Your task to perform on an android device: turn off location Image 0: 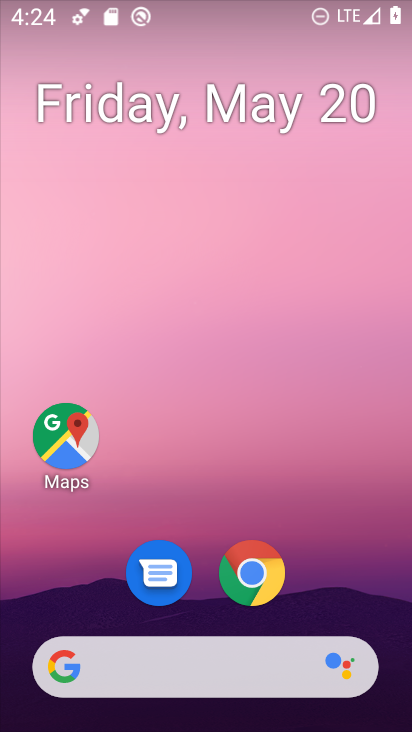
Step 0: drag from (374, 585) to (328, 144)
Your task to perform on an android device: turn off location Image 1: 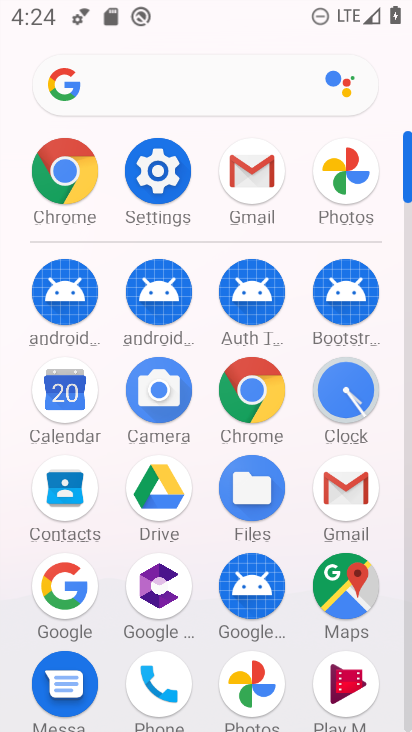
Step 1: click (160, 159)
Your task to perform on an android device: turn off location Image 2: 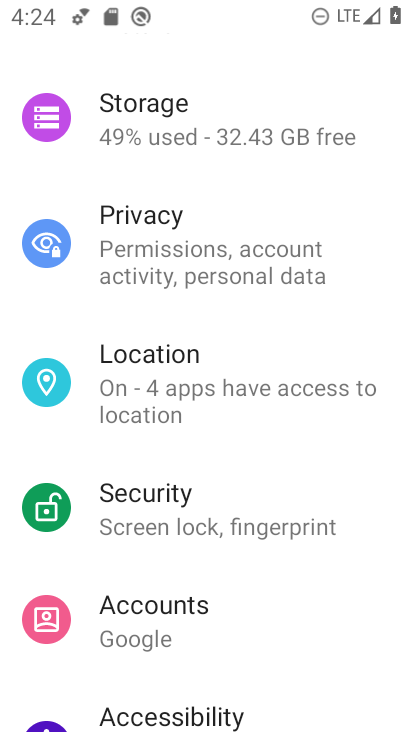
Step 2: click (174, 360)
Your task to perform on an android device: turn off location Image 3: 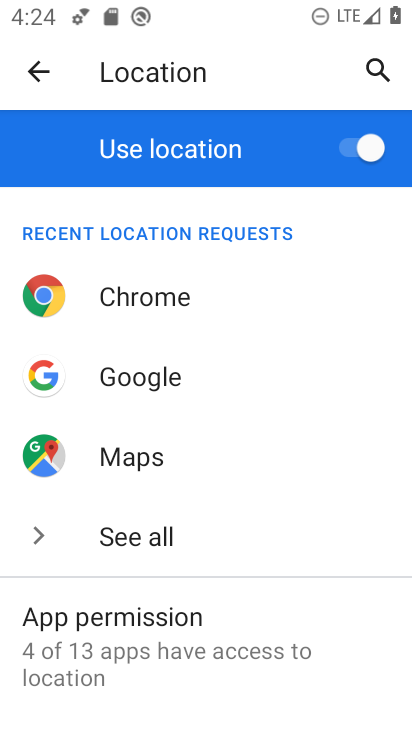
Step 3: click (355, 171)
Your task to perform on an android device: turn off location Image 4: 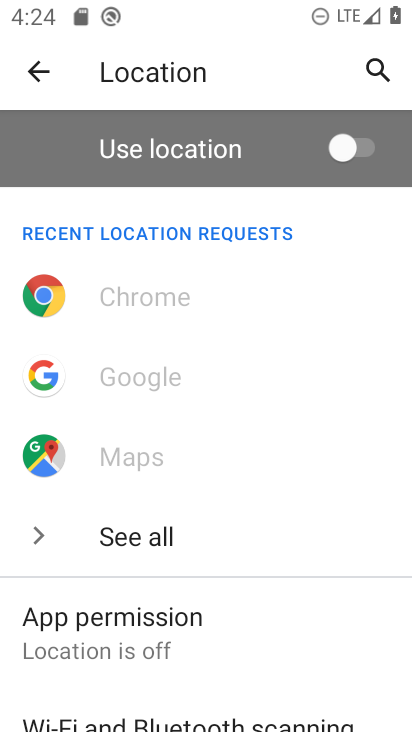
Step 4: task complete